Your task to perform on an android device: toggle data saver in the chrome app Image 0: 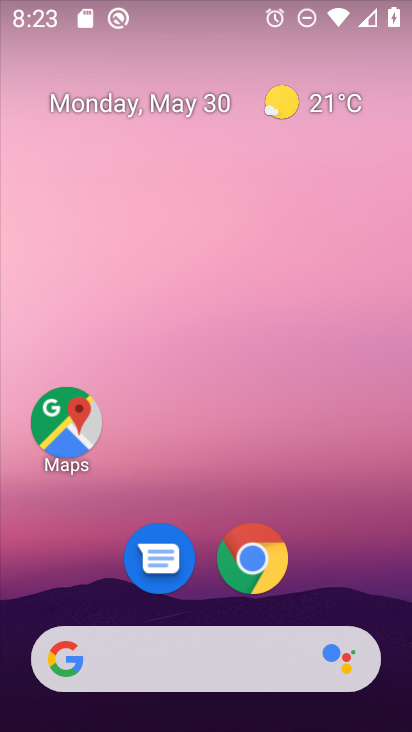
Step 0: click (242, 569)
Your task to perform on an android device: toggle data saver in the chrome app Image 1: 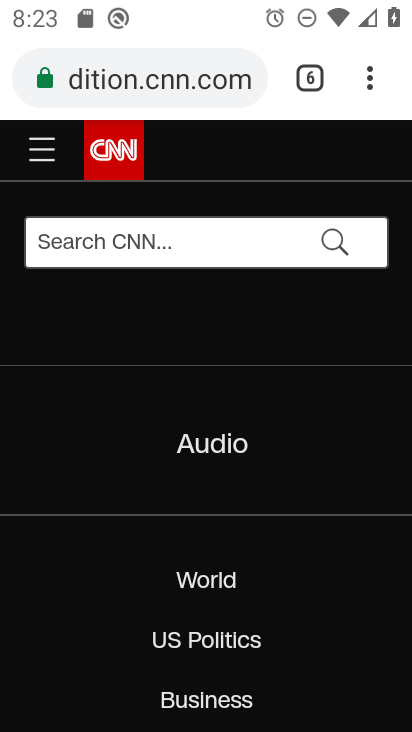
Step 1: click (372, 80)
Your task to perform on an android device: toggle data saver in the chrome app Image 2: 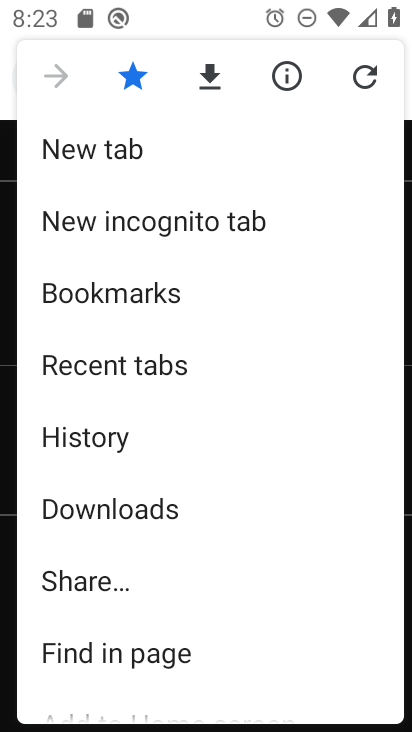
Step 2: drag from (187, 616) to (164, 127)
Your task to perform on an android device: toggle data saver in the chrome app Image 3: 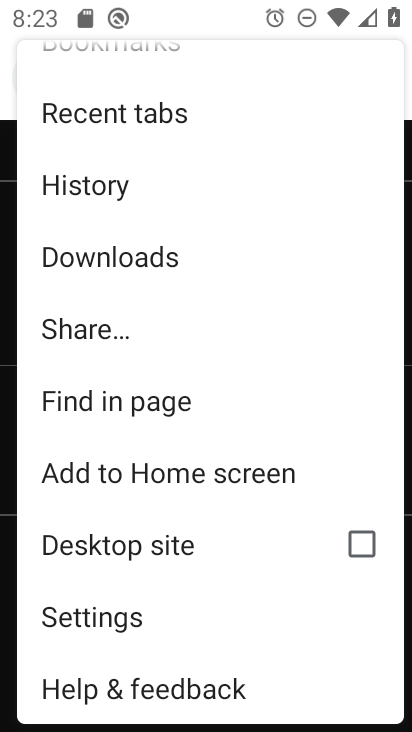
Step 3: click (118, 610)
Your task to perform on an android device: toggle data saver in the chrome app Image 4: 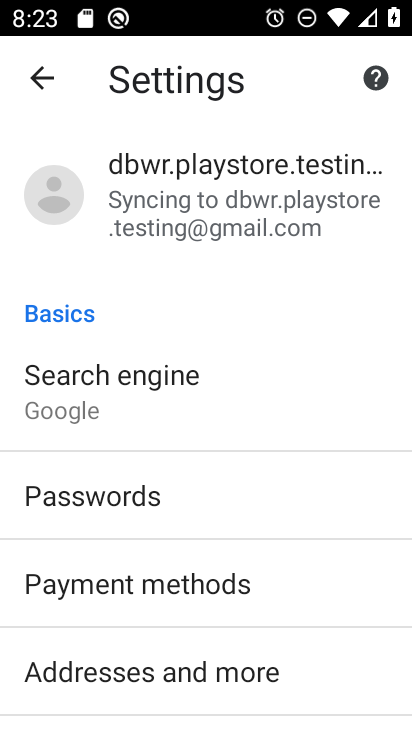
Step 4: drag from (316, 595) to (218, 87)
Your task to perform on an android device: toggle data saver in the chrome app Image 5: 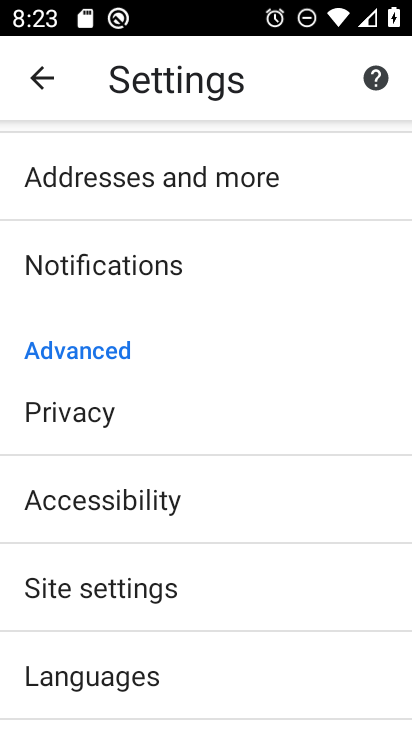
Step 5: drag from (189, 644) to (112, 341)
Your task to perform on an android device: toggle data saver in the chrome app Image 6: 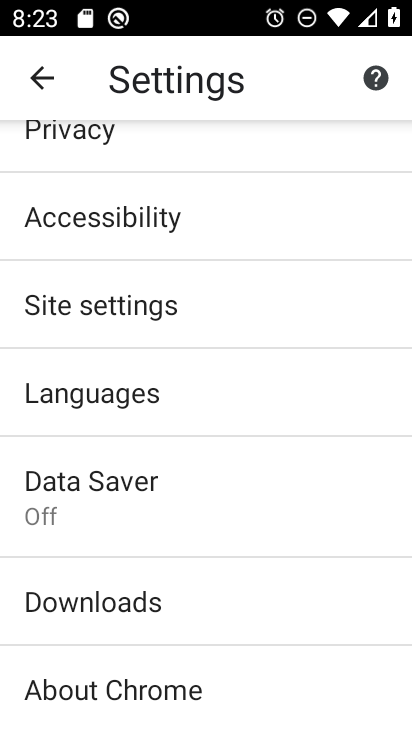
Step 6: click (100, 478)
Your task to perform on an android device: toggle data saver in the chrome app Image 7: 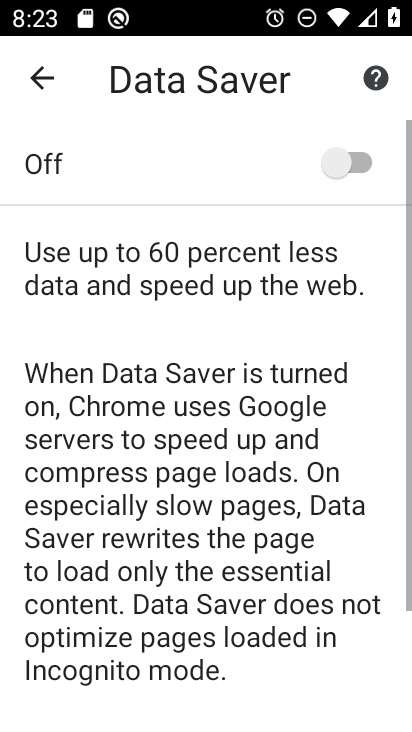
Step 7: click (340, 162)
Your task to perform on an android device: toggle data saver in the chrome app Image 8: 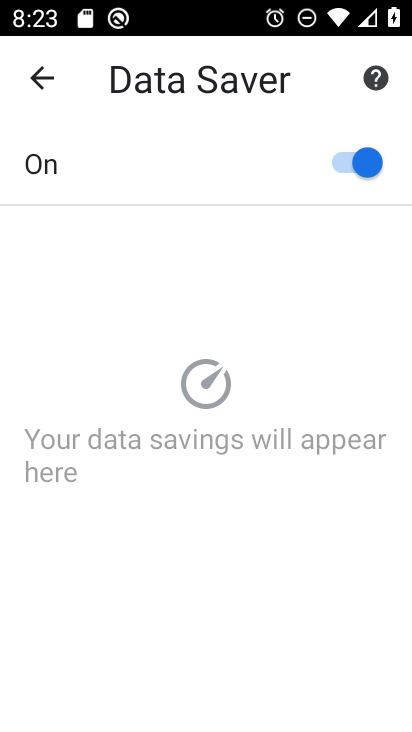
Step 8: task complete